Your task to perform on an android device: Open Google Chrome and click the shortcut for Amazon.com Image 0: 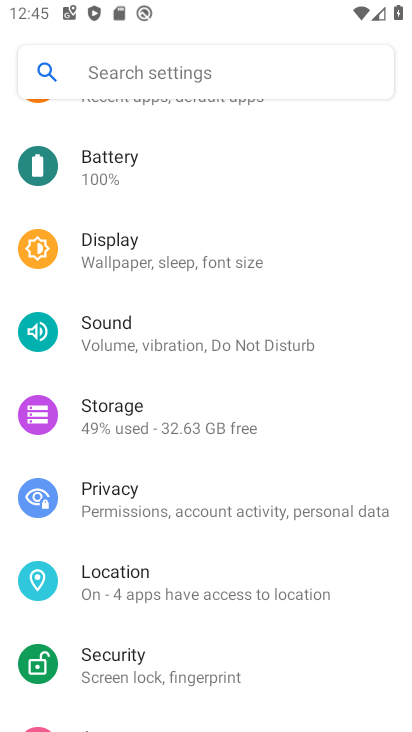
Step 0: press home button
Your task to perform on an android device: Open Google Chrome and click the shortcut for Amazon.com Image 1: 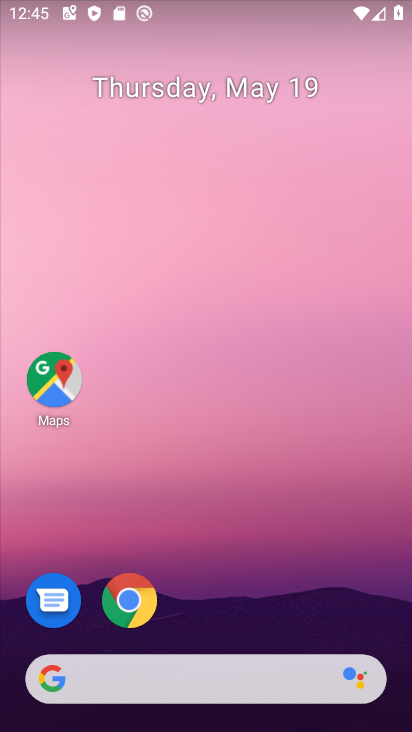
Step 1: click (150, 597)
Your task to perform on an android device: Open Google Chrome and click the shortcut for Amazon.com Image 2: 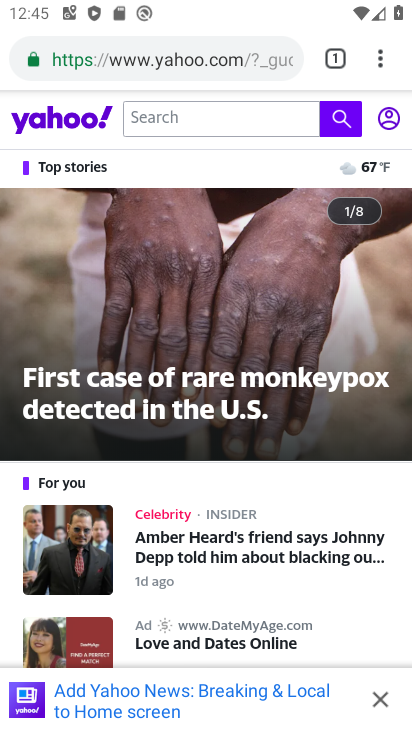
Step 2: click (209, 48)
Your task to perform on an android device: Open Google Chrome and click the shortcut for Amazon.com Image 3: 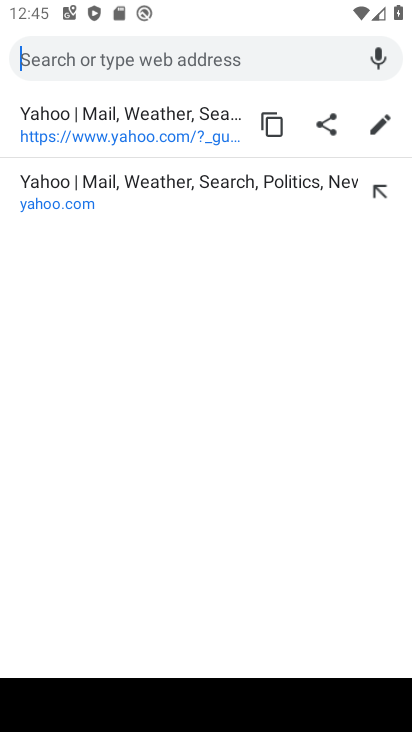
Step 3: type "amazon"
Your task to perform on an android device: Open Google Chrome and click the shortcut for Amazon.com Image 4: 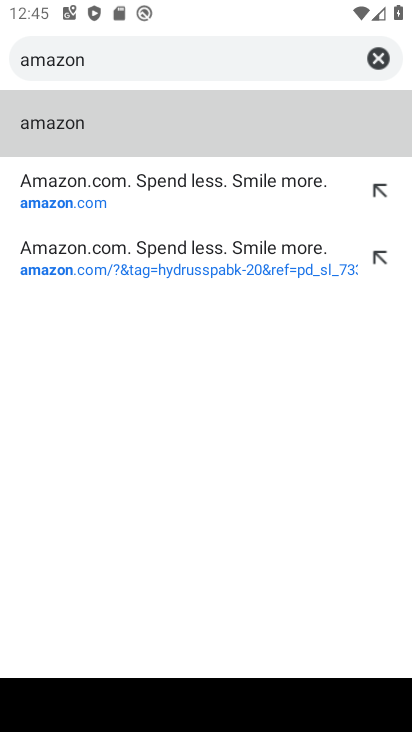
Step 4: click (111, 211)
Your task to perform on an android device: Open Google Chrome and click the shortcut for Amazon.com Image 5: 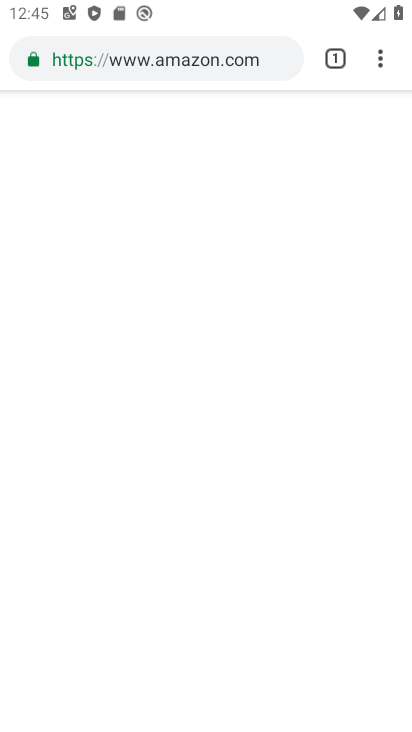
Step 5: task complete